Your task to perform on an android device: Go to sound settings Image 0: 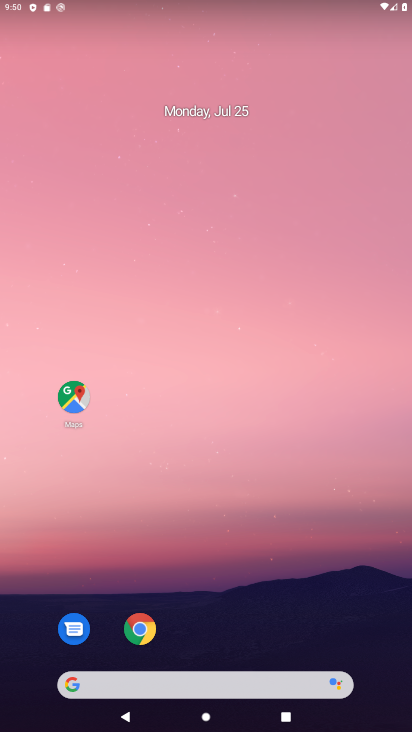
Step 0: drag from (310, 599) to (228, 1)
Your task to perform on an android device: Go to sound settings Image 1: 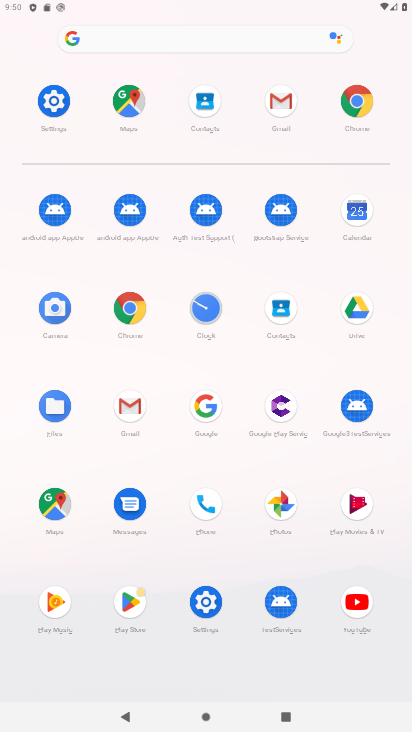
Step 1: click (49, 96)
Your task to perform on an android device: Go to sound settings Image 2: 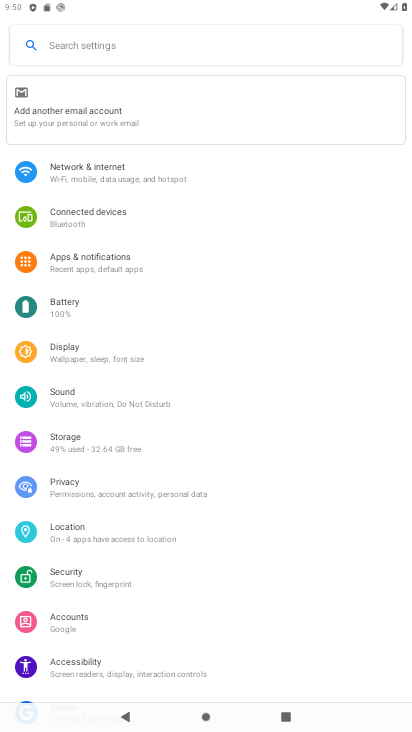
Step 2: click (85, 409)
Your task to perform on an android device: Go to sound settings Image 3: 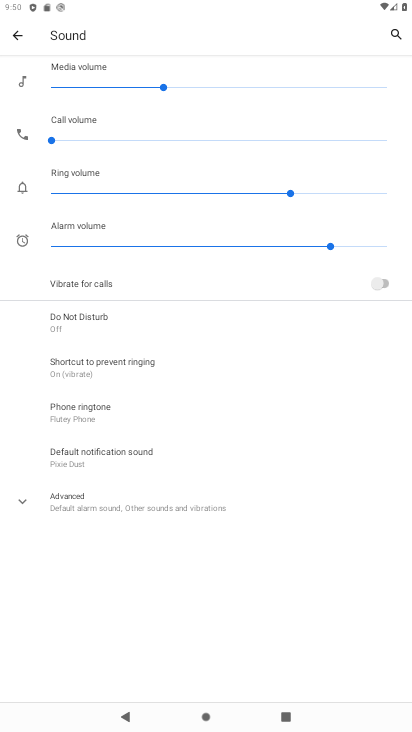
Step 3: task complete